Your task to perform on an android device: open a new tab in the chrome app Image 0: 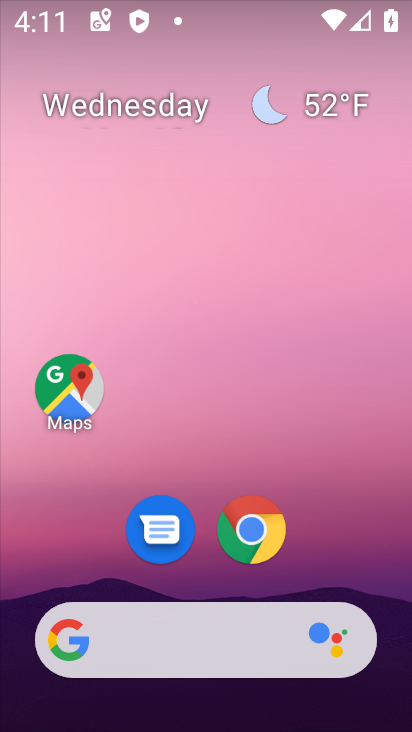
Step 0: click (252, 528)
Your task to perform on an android device: open a new tab in the chrome app Image 1: 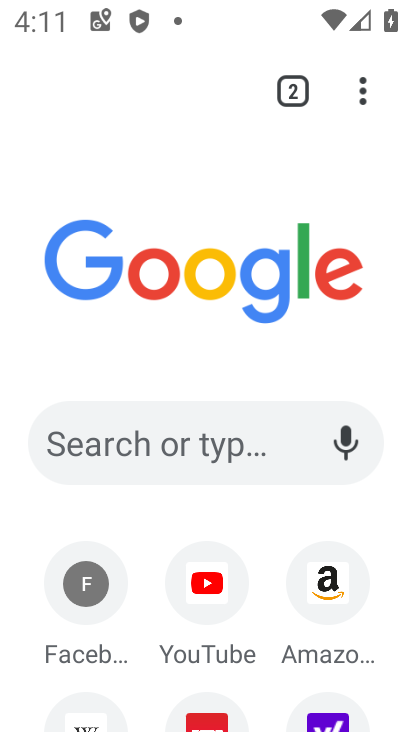
Step 1: click (363, 85)
Your task to perform on an android device: open a new tab in the chrome app Image 2: 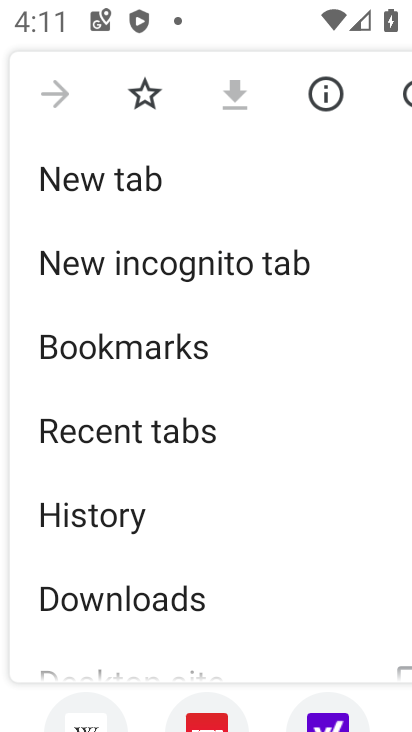
Step 2: click (103, 183)
Your task to perform on an android device: open a new tab in the chrome app Image 3: 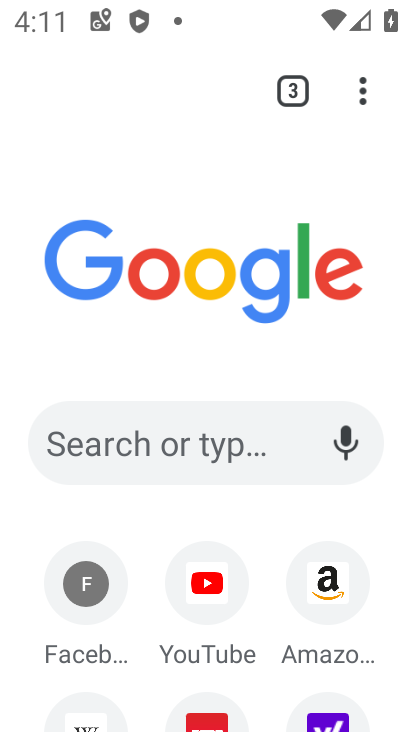
Step 3: task complete